Your task to perform on an android device: Go to privacy settings Image 0: 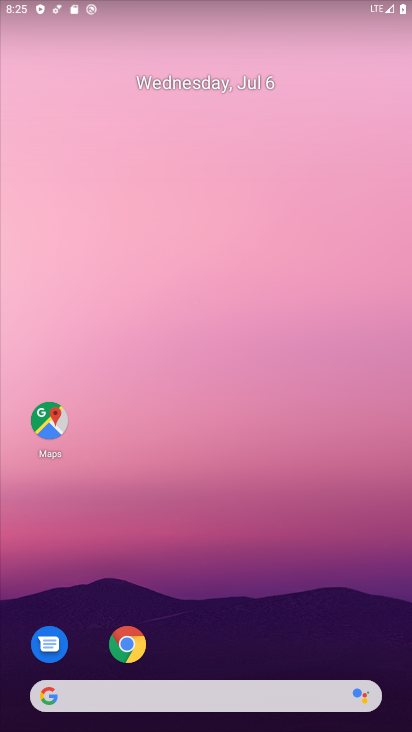
Step 0: click (230, 160)
Your task to perform on an android device: Go to privacy settings Image 1: 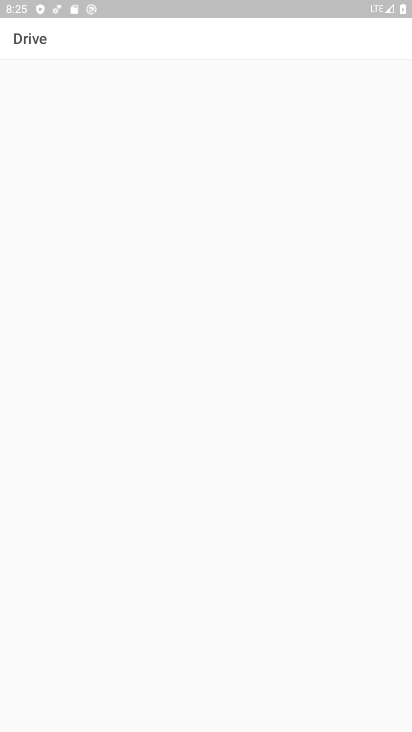
Step 1: press home button
Your task to perform on an android device: Go to privacy settings Image 2: 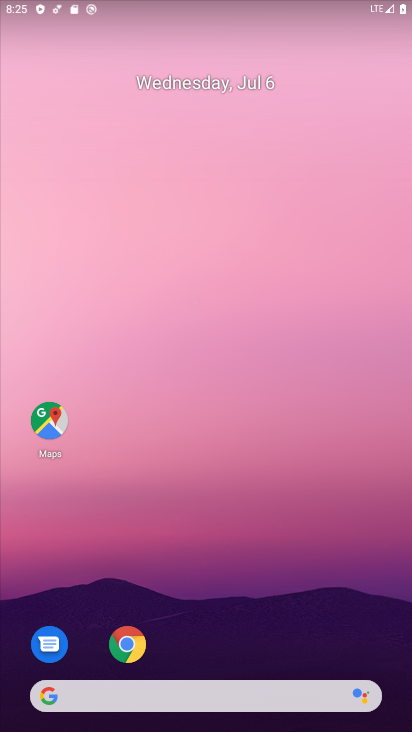
Step 2: drag from (237, 642) to (249, 78)
Your task to perform on an android device: Go to privacy settings Image 3: 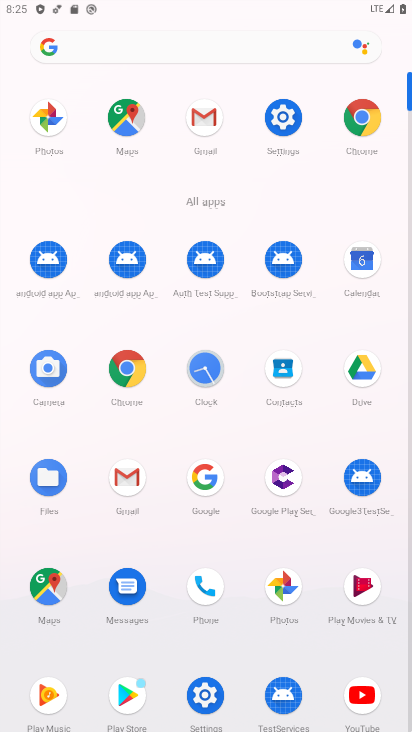
Step 3: click (288, 111)
Your task to perform on an android device: Go to privacy settings Image 4: 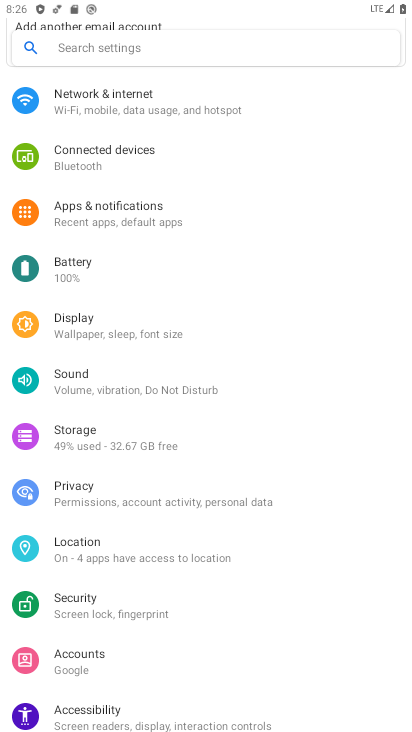
Step 4: click (134, 500)
Your task to perform on an android device: Go to privacy settings Image 5: 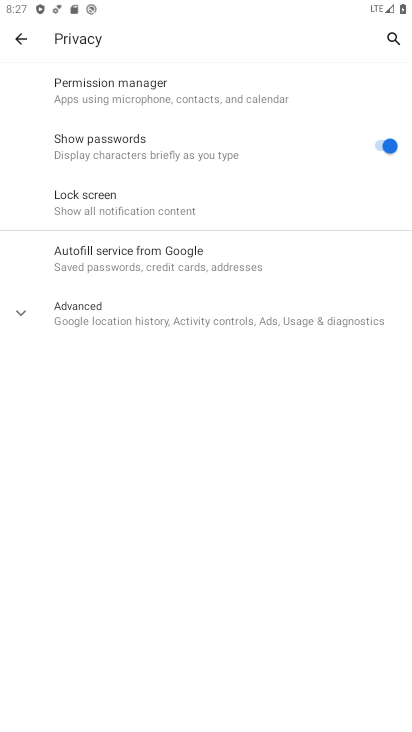
Step 5: task complete